Your task to perform on an android device: add a label to a message in the gmail app Image 0: 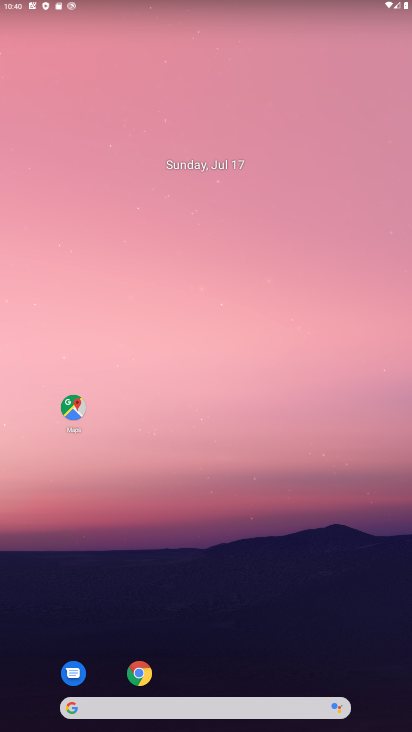
Step 0: drag from (212, 682) to (217, 129)
Your task to perform on an android device: add a label to a message in the gmail app Image 1: 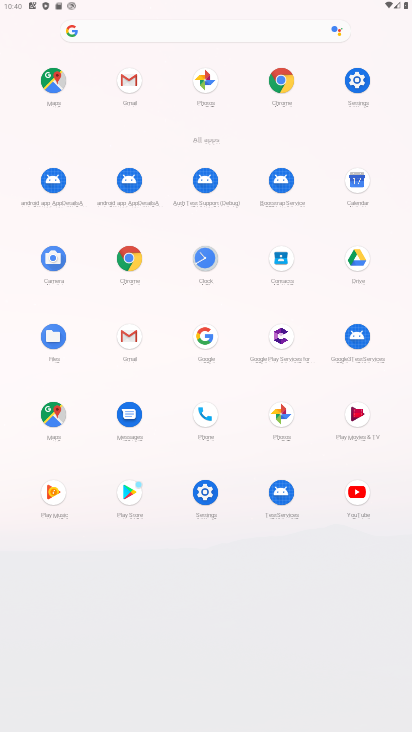
Step 1: click (128, 336)
Your task to perform on an android device: add a label to a message in the gmail app Image 2: 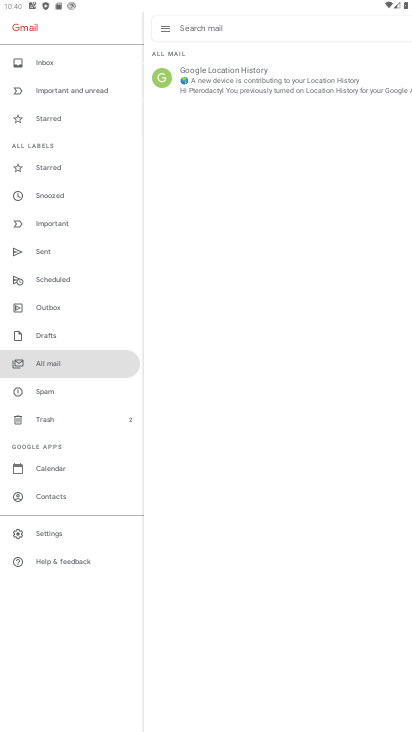
Step 2: task complete